Your task to perform on an android device: Clear the cart on amazon. Add apple airpods to the cart on amazon, then select checkout. Image 0: 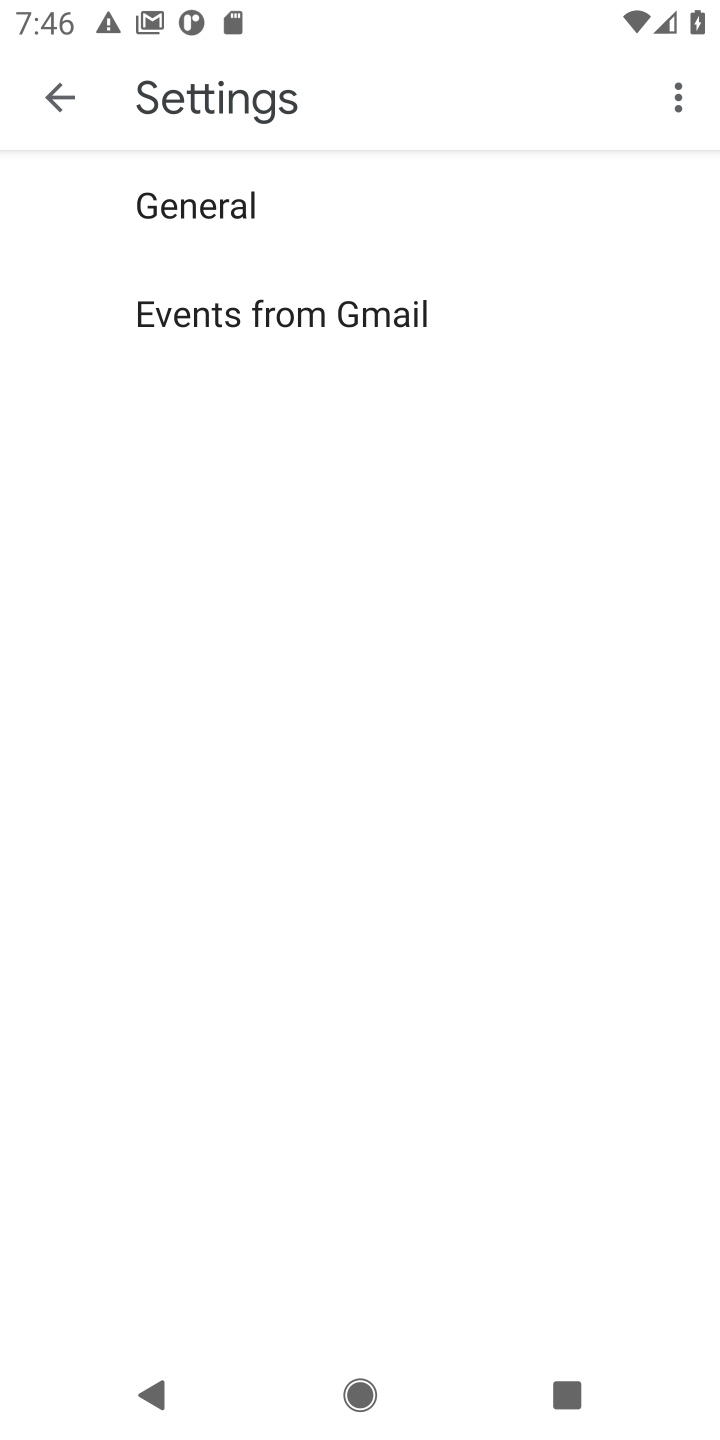
Step 0: press home button
Your task to perform on an android device: Clear the cart on amazon. Add apple airpods to the cart on amazon, then select checkout. Image 1: 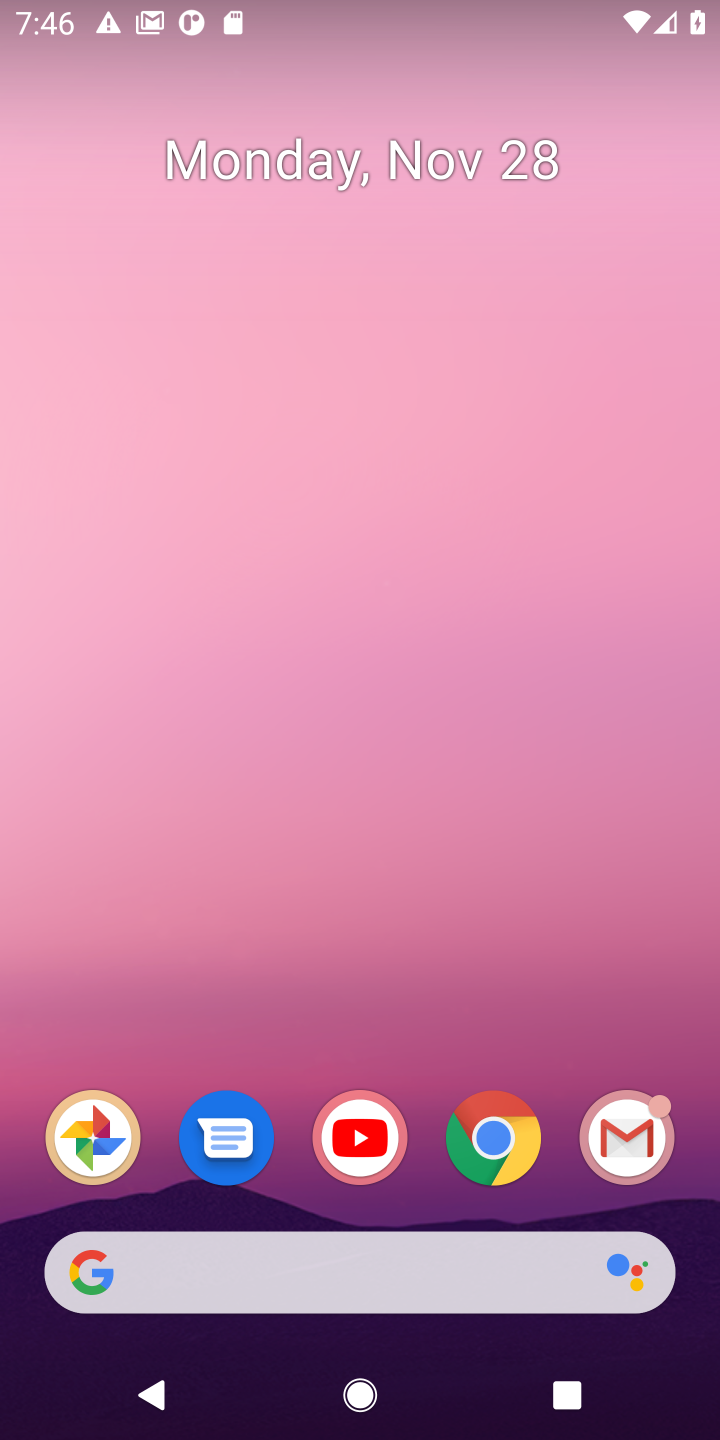
Step 1: click (509, 1121)
Your task to perform on an android device: Clear the cart on amazon. Add apple airpods to the cart on amazon, then select checkout. Image 2: 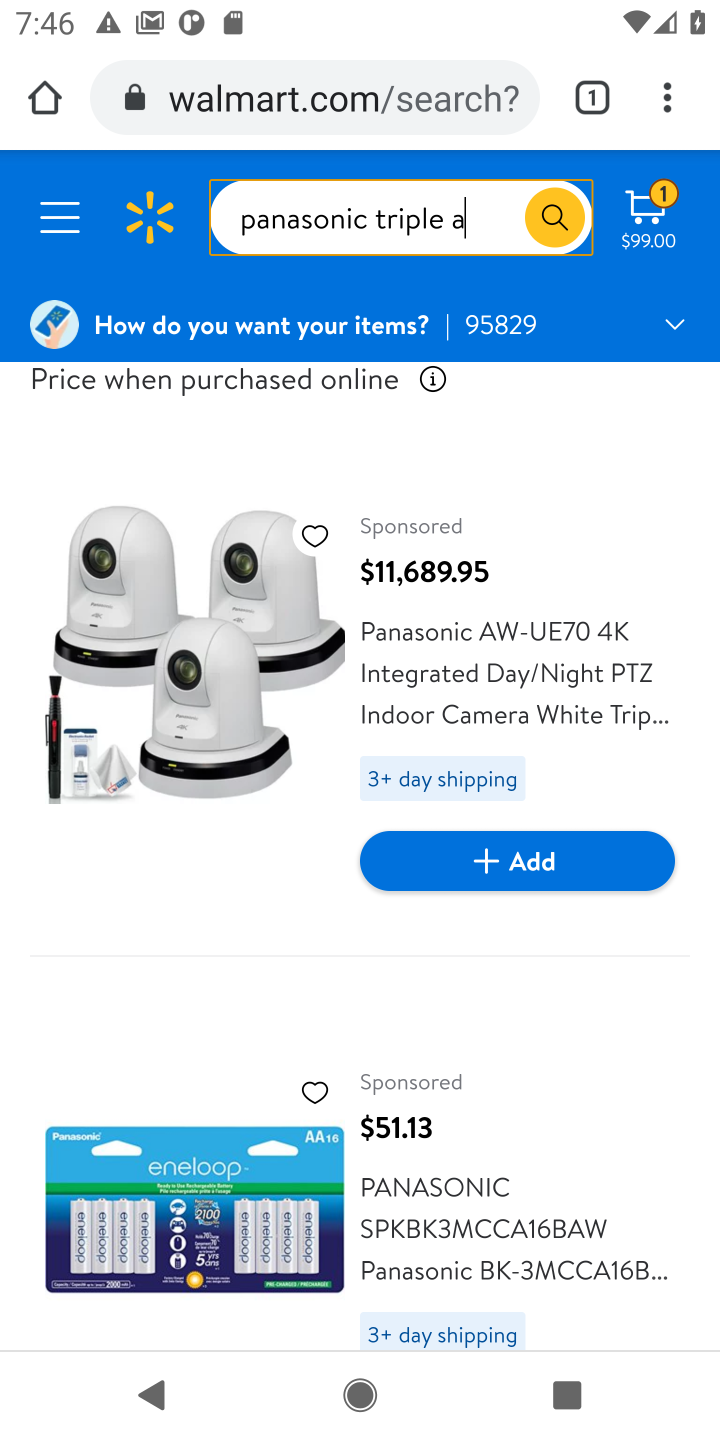
Step 2: click (328, 99)
Your task to perform on an android device: Clear the cart on amazon. Add apple airpods to the cart on amazon, then select checkout. Image 3: 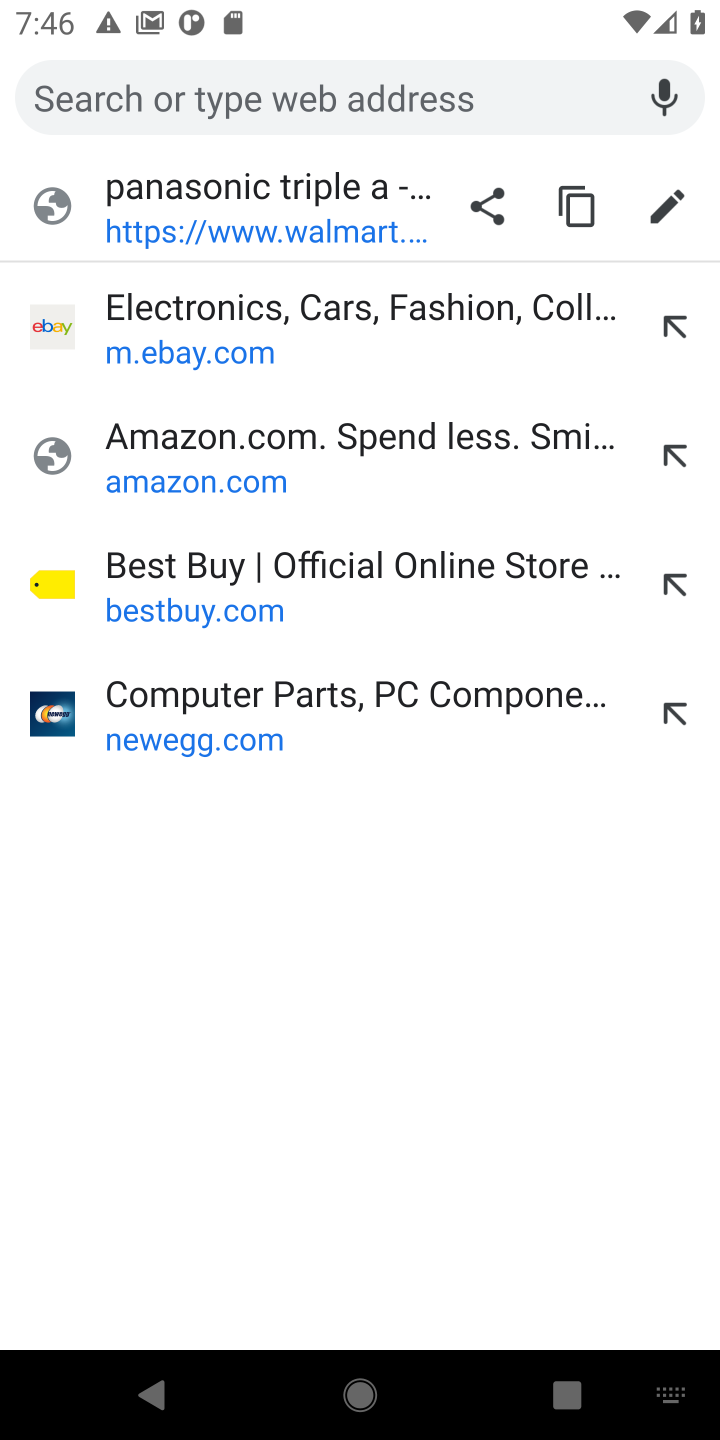
Step 3: click (137, 442)
Your task to perform on an android device: Clear the cart on amazon. Add apple airpods to the cart on amazon, then select checkout. Image 4: 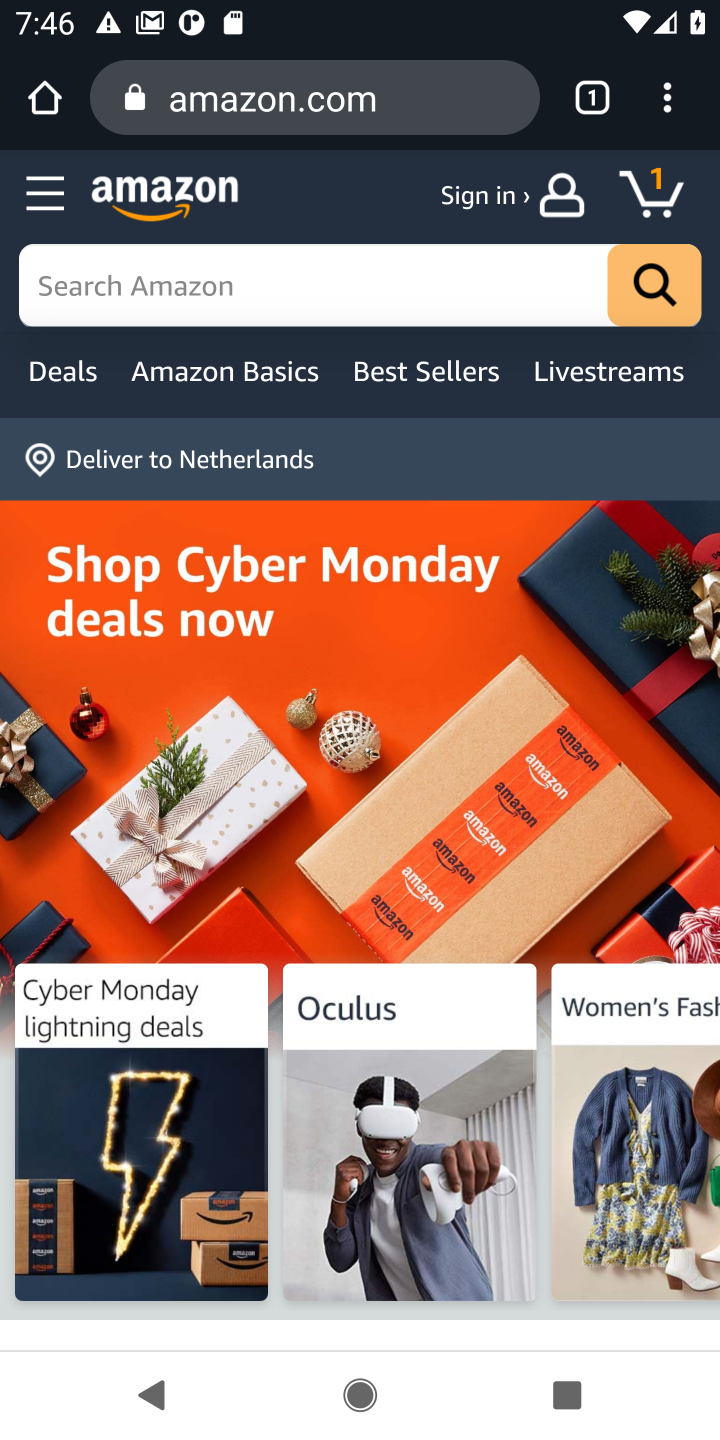
Step 4: click (634, 180)
Your task to perform on an android device: Clear the cart on amazon. Add apple airpods to the cart on amazon, then select checkout. Image 5: 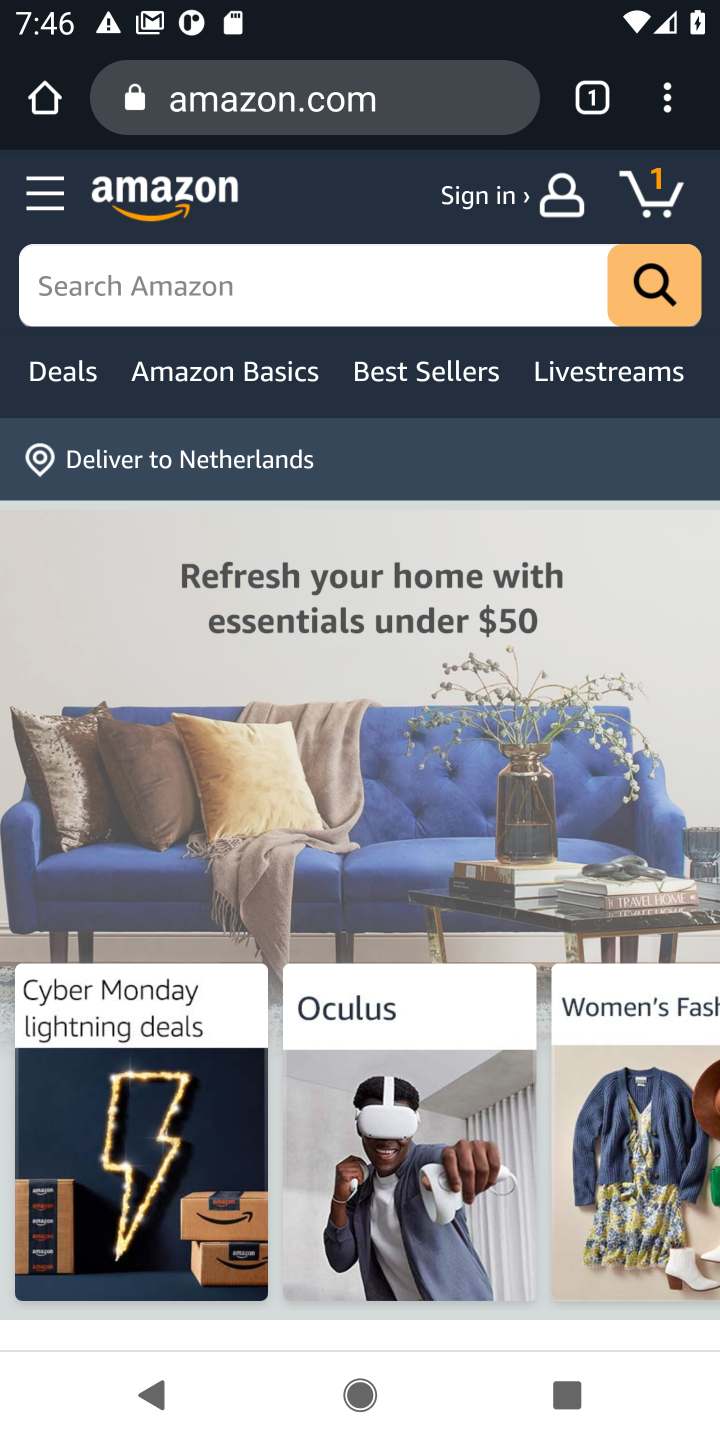
Step 5: click (655, 197)
Your task to perform on an android device: Clear the cart on amazon. Add apple airpods to the cart on amazon, then select checkout. Image 6: 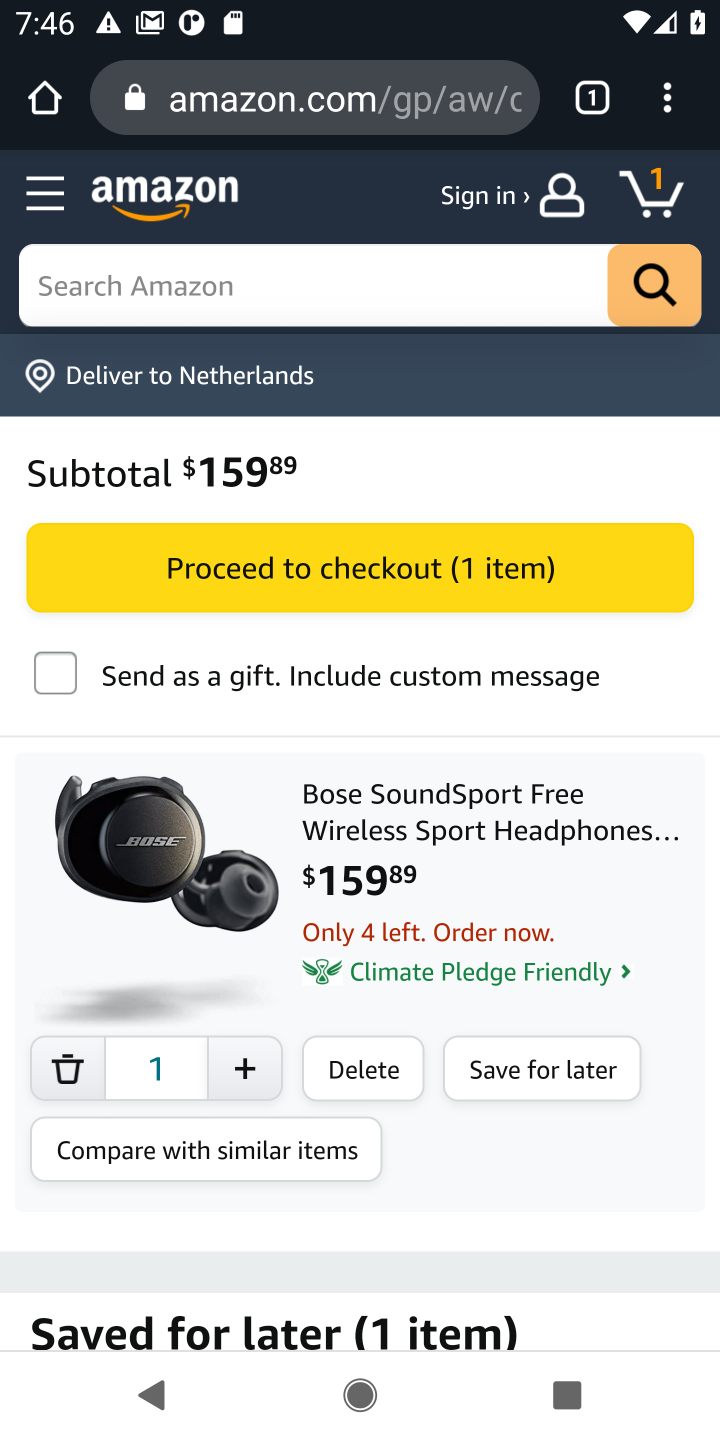
Step 6: click (76, 1065)
Your task to perform on an android device: Clear the cart on amazon. Add apple airpods to the cart on amazon, then select checkout. Image 7: 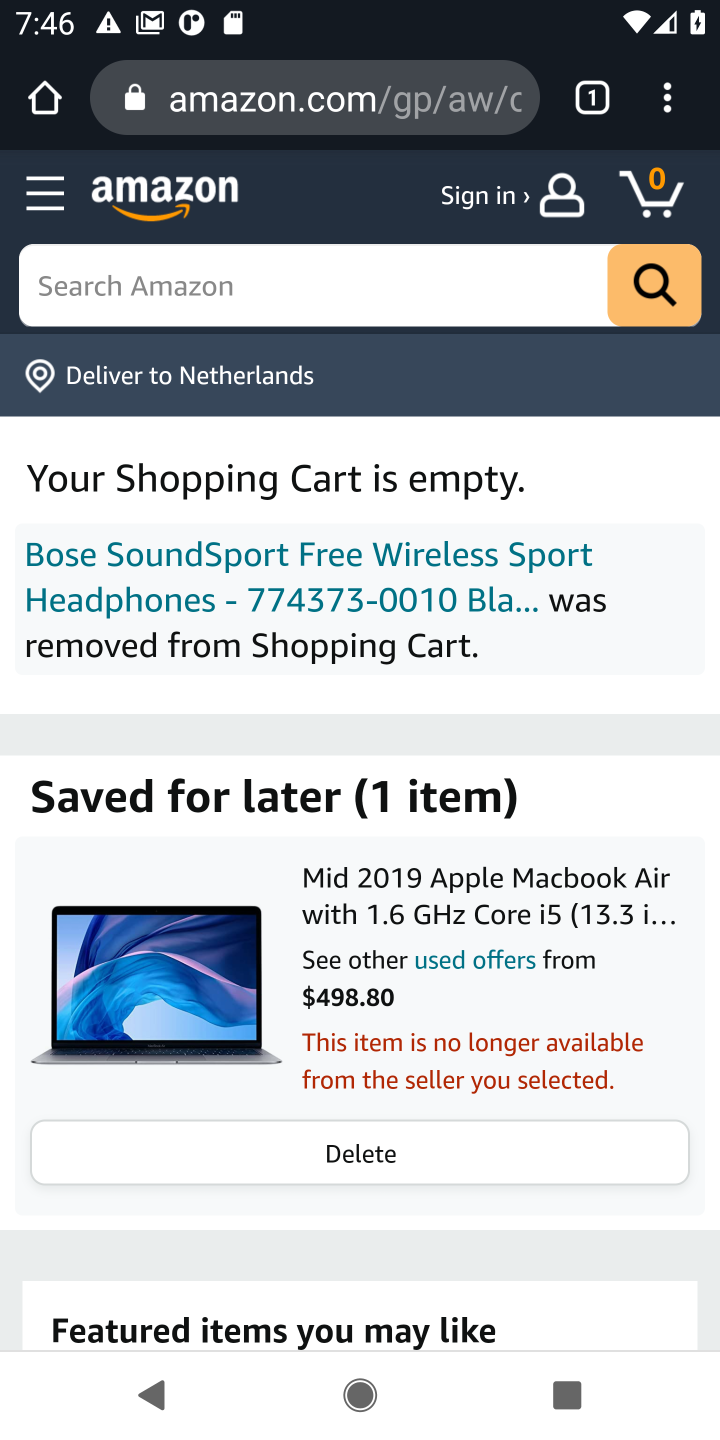
Step 7: click (145, 282)
Your task to perform on an android device: Clear the cart on amazon. Add apple airpods to the cart on amazon, then select checkout. Image 8: 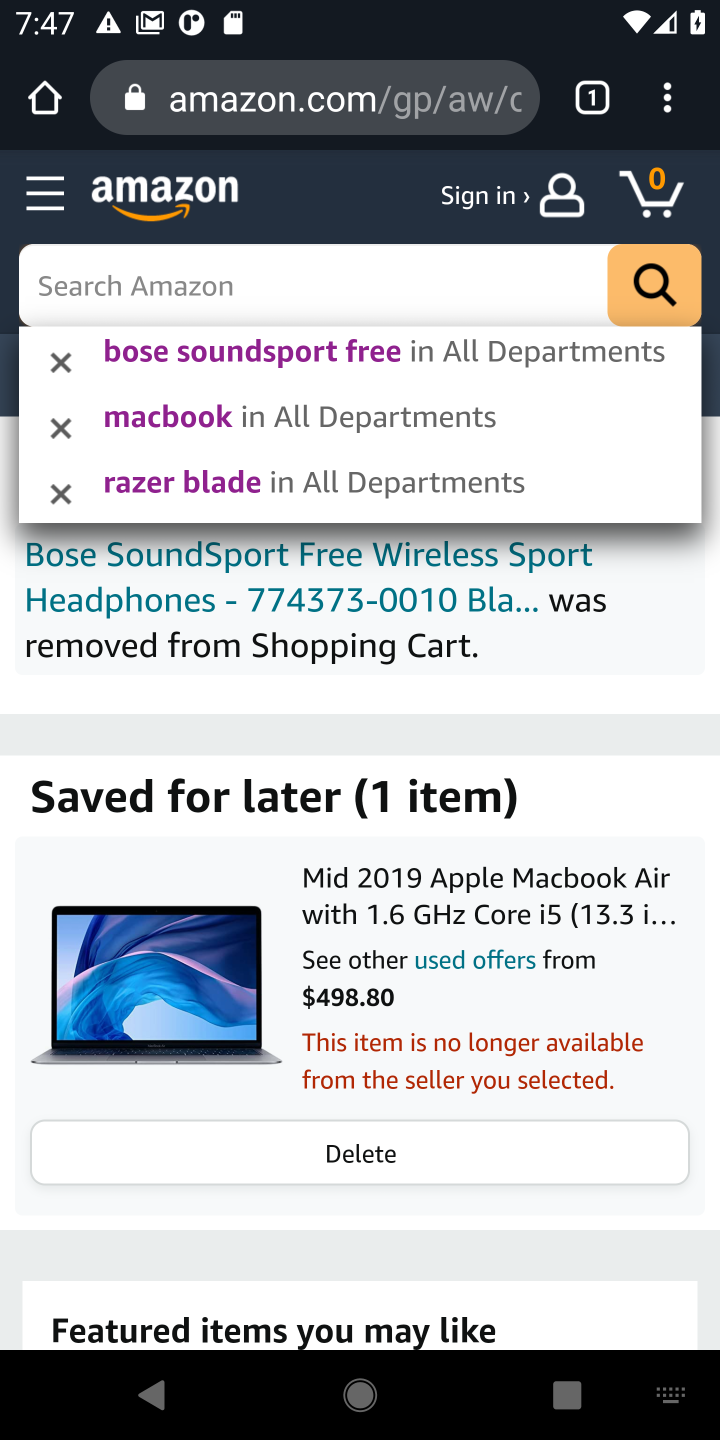
Step 8: type "apple airpods"
Your task to perform on an android device: Clear the cart on amazon. Add apple airpods to the cart on amazon, then select checkout. Image 9: 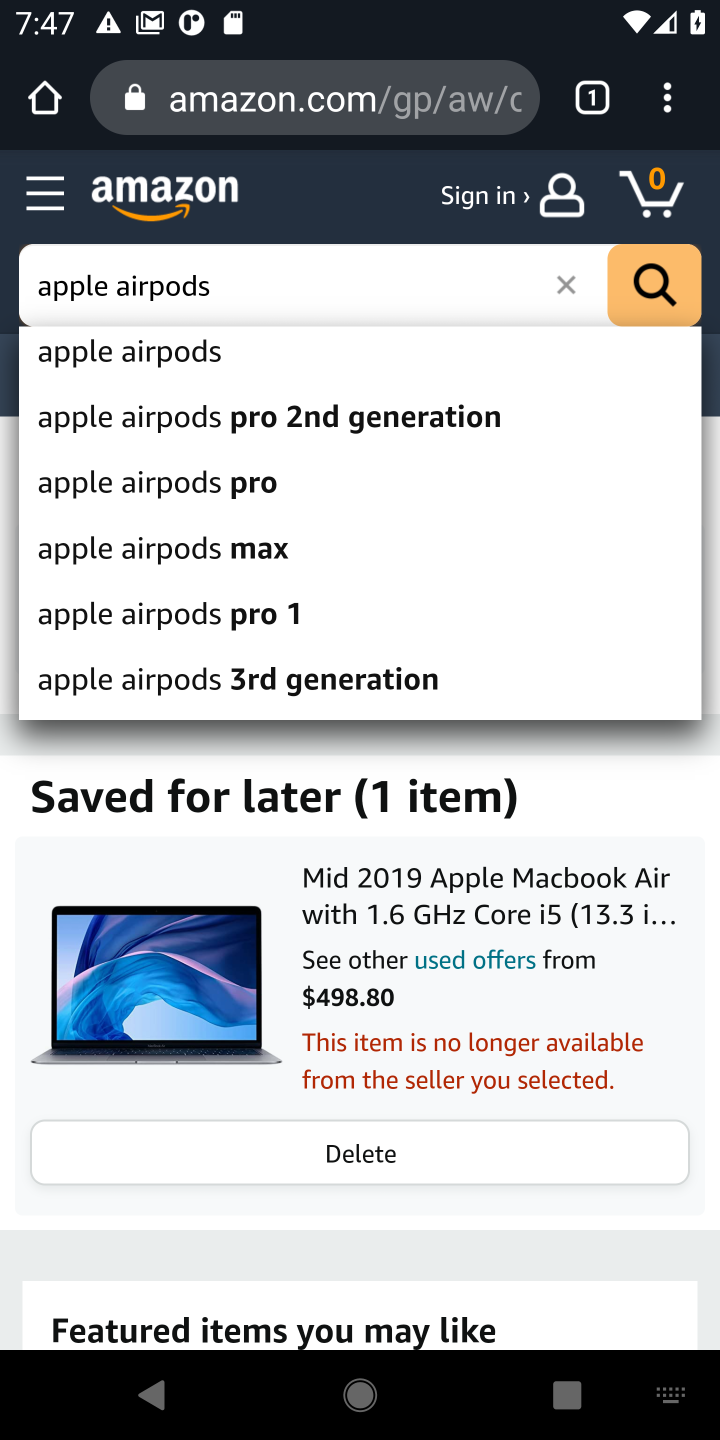
Step 9: click (146, 365)
Your task to perform on an android device: Clear the cart on amazon. Add apple airpods to the cart on amazon, then select checkout. Image 10: 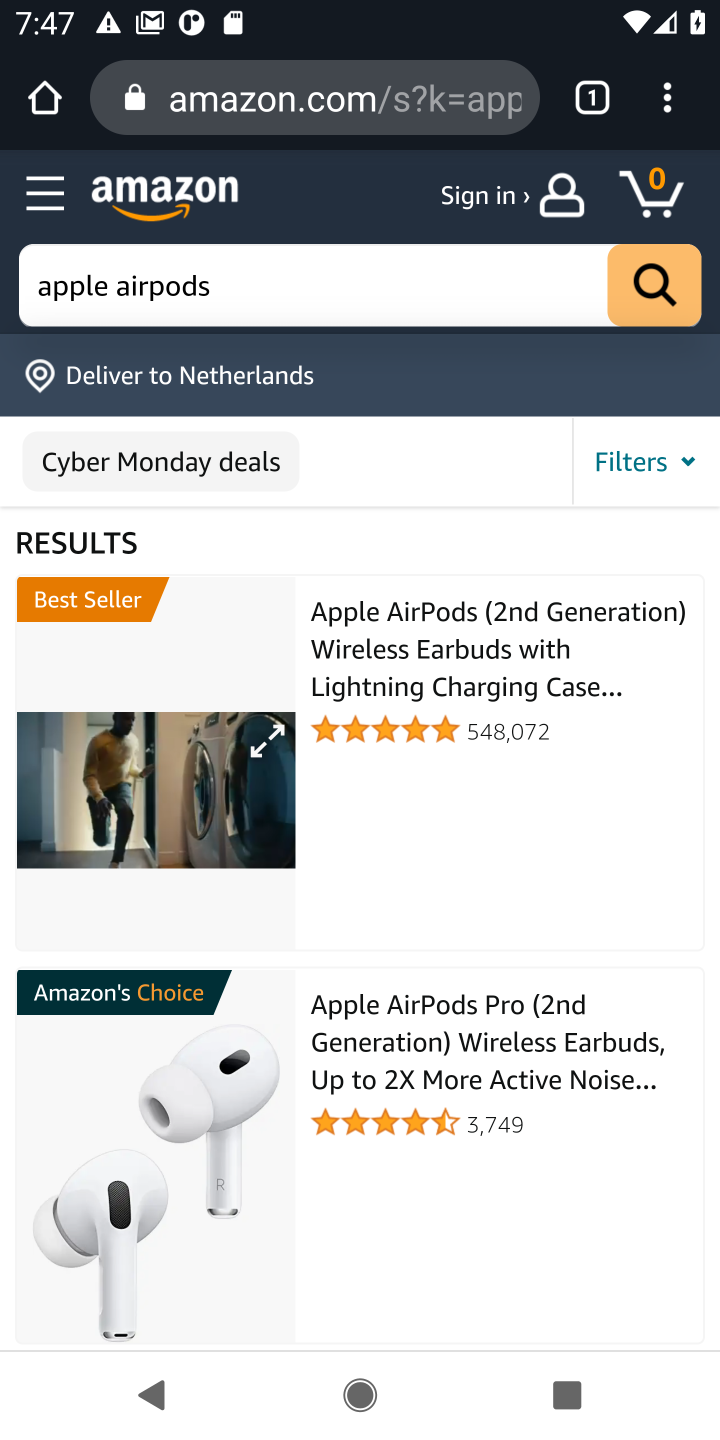
Step 10: drag from (427, 1101) to (460, 663)
Your task to perform on an android device: Clear the cart on amazon. Add apple airpods to the cart on amazon, then select checkout. Image 11: 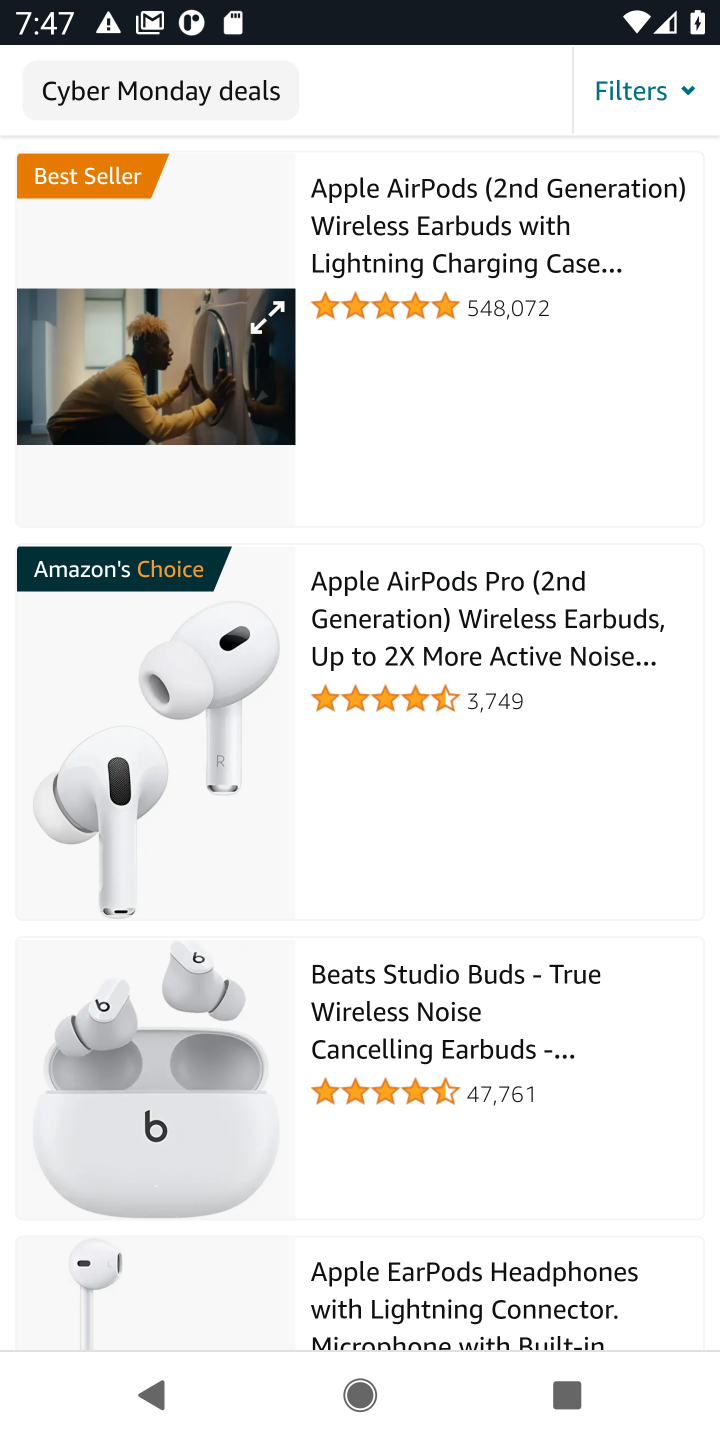
Step 11: drag from (509, 1037) to (502, 616)
Your task to perform on an android device: Clear the cart on amazon. Add apple airpods to the cart on amazon, then select checkout. Image 12: 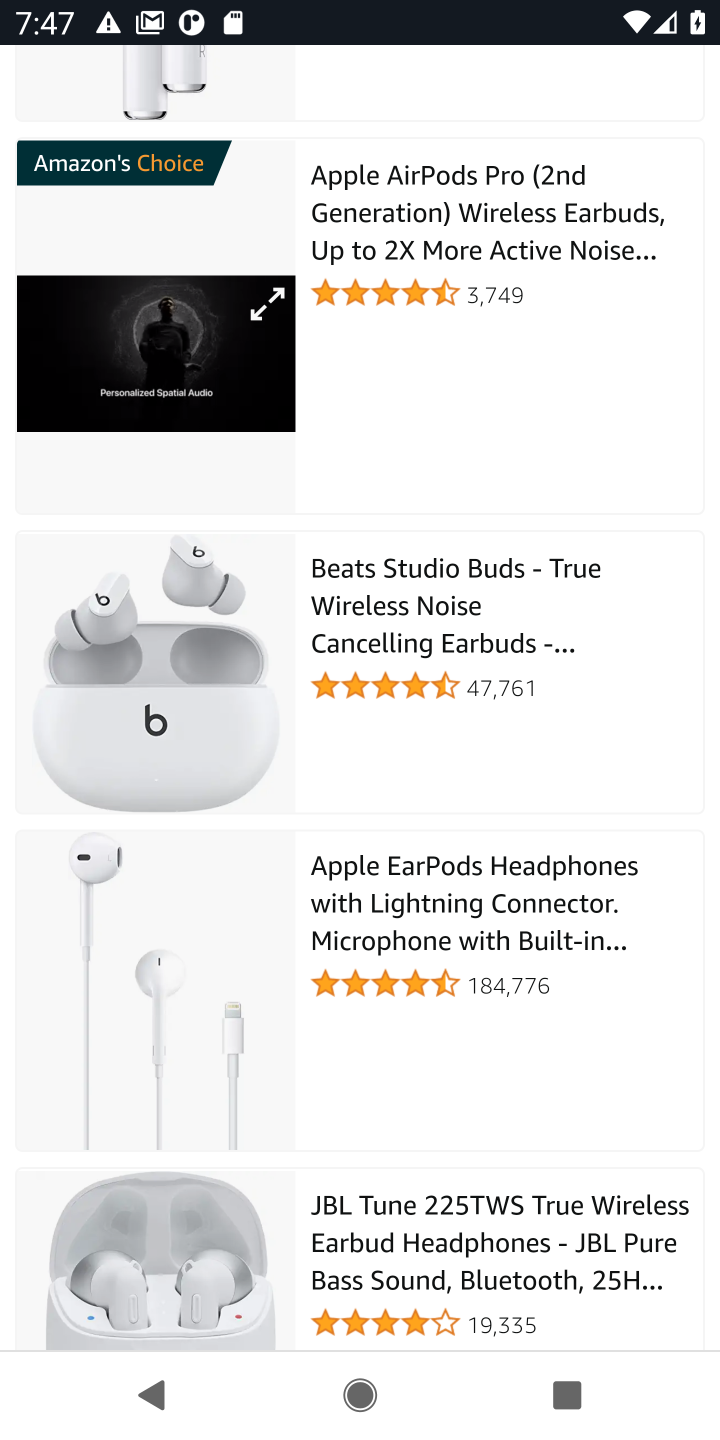
Step 12: drag from (520, 1039) to (524, 530)
Your task to perform on an android device: Clear the cart on amazon. Add apple airpods to the cart on amazon, then select checkout. Image 13: 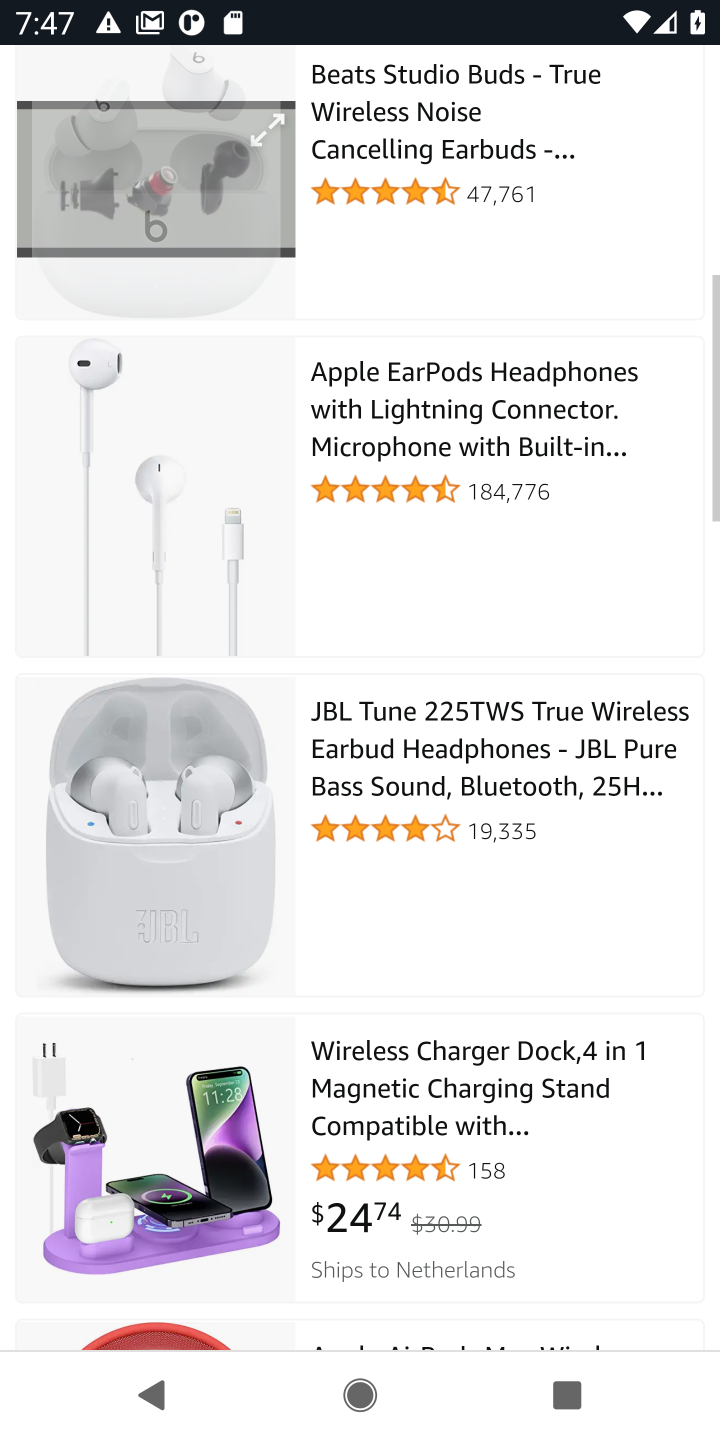
Step 13: drag from (496, 1100) to (465, 672)
Your task to perform on an android device: Clear the cart on amazon. Add apple airpods to the cart on amazon, then select checkout. Image 14: 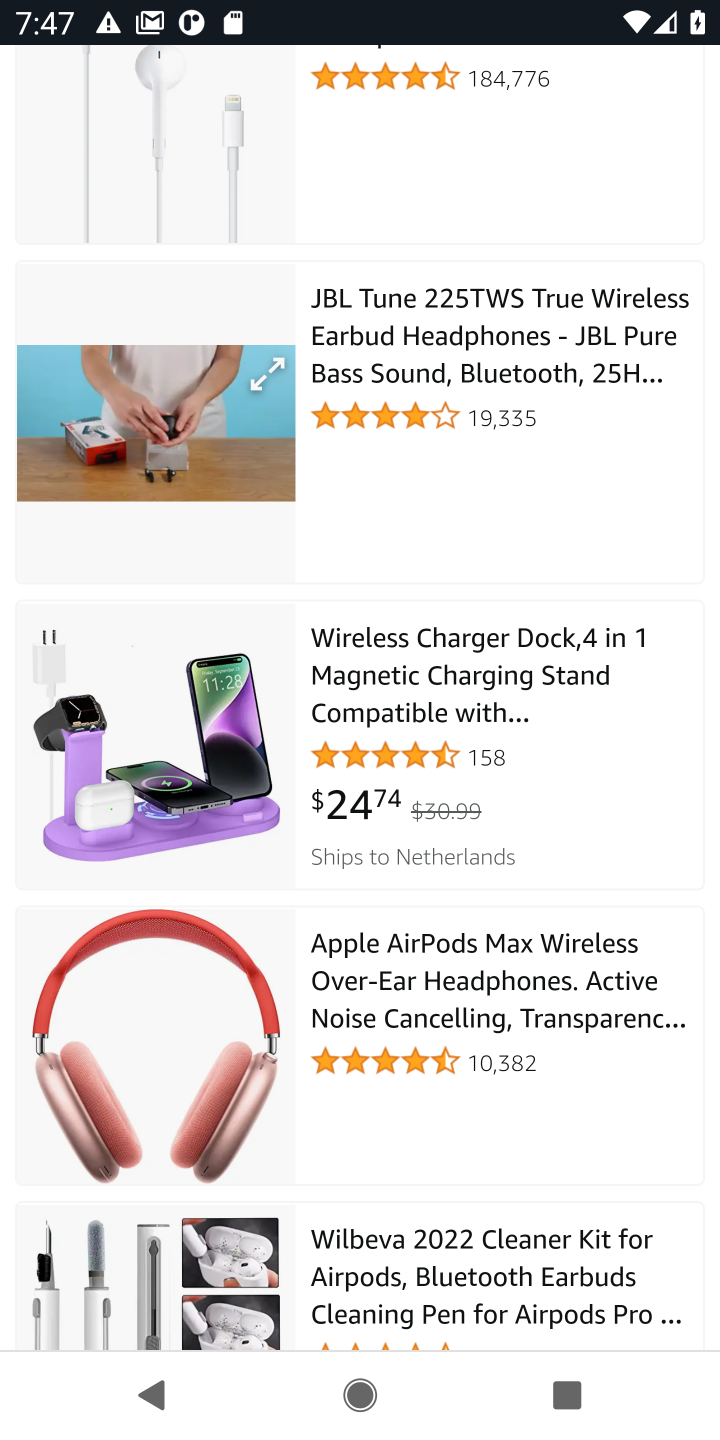
Step 14: drag from (528, 1154) to (513, 611)
Your task to perform on an android device: Clear the cart on amazon. Add apple airpods to the cart on amazon, then select checkout. Image 15: 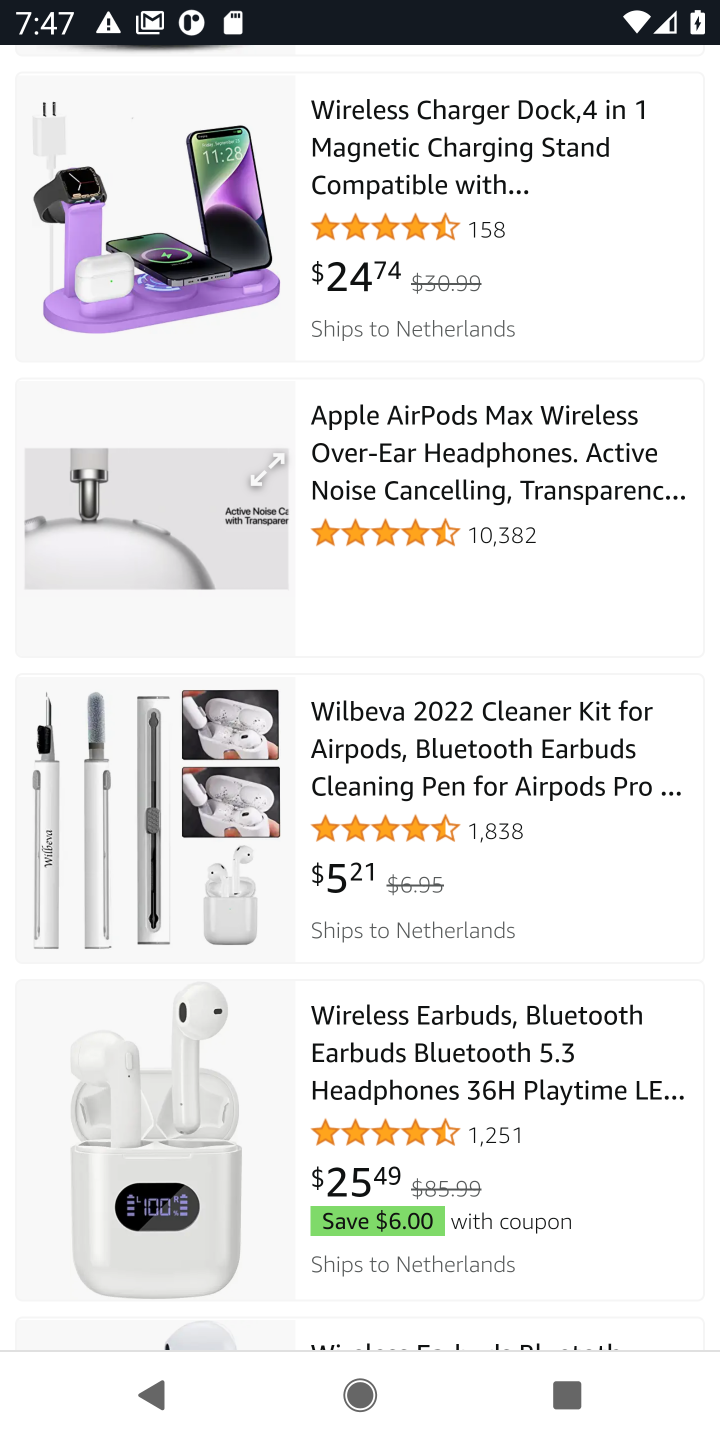
Step 15: drag from (531, 1208) to (537, 771)
Your task to perform on an android device: Clear the cart on amazon. Add apple airpods to the cart on amazon, then select checkout. Image 16: 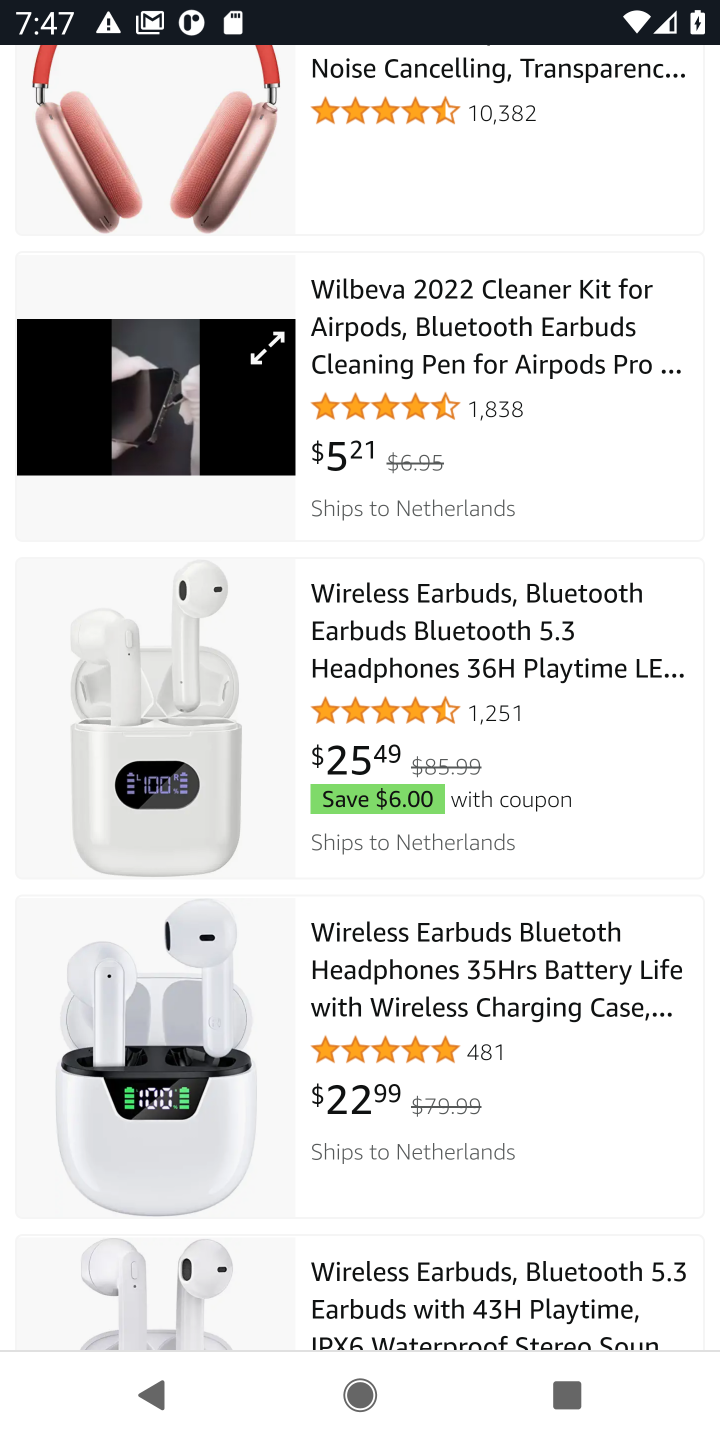
Step 16: drag from (495, 1120) to (494, 643)
Your task to perform on an android device: Clear the cart on amazon. Add apple airpods to the cart on amazon, then select checkout. Image 17: 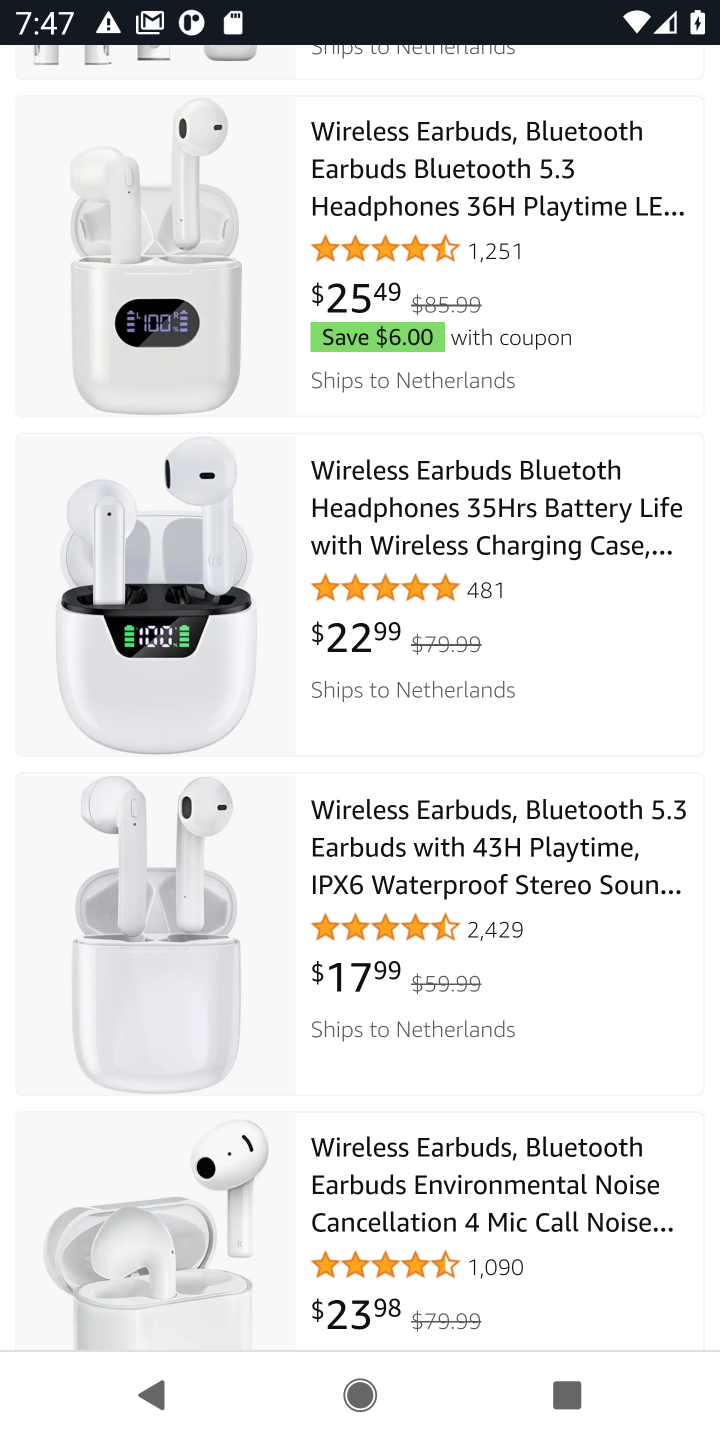
Step 17: drag from (471, 1069) to (469, 619)
Your task to perform on an android device: Clear the cart on amazon. Add apple airpods to the cart on amazon, then select checkout. Image 18: 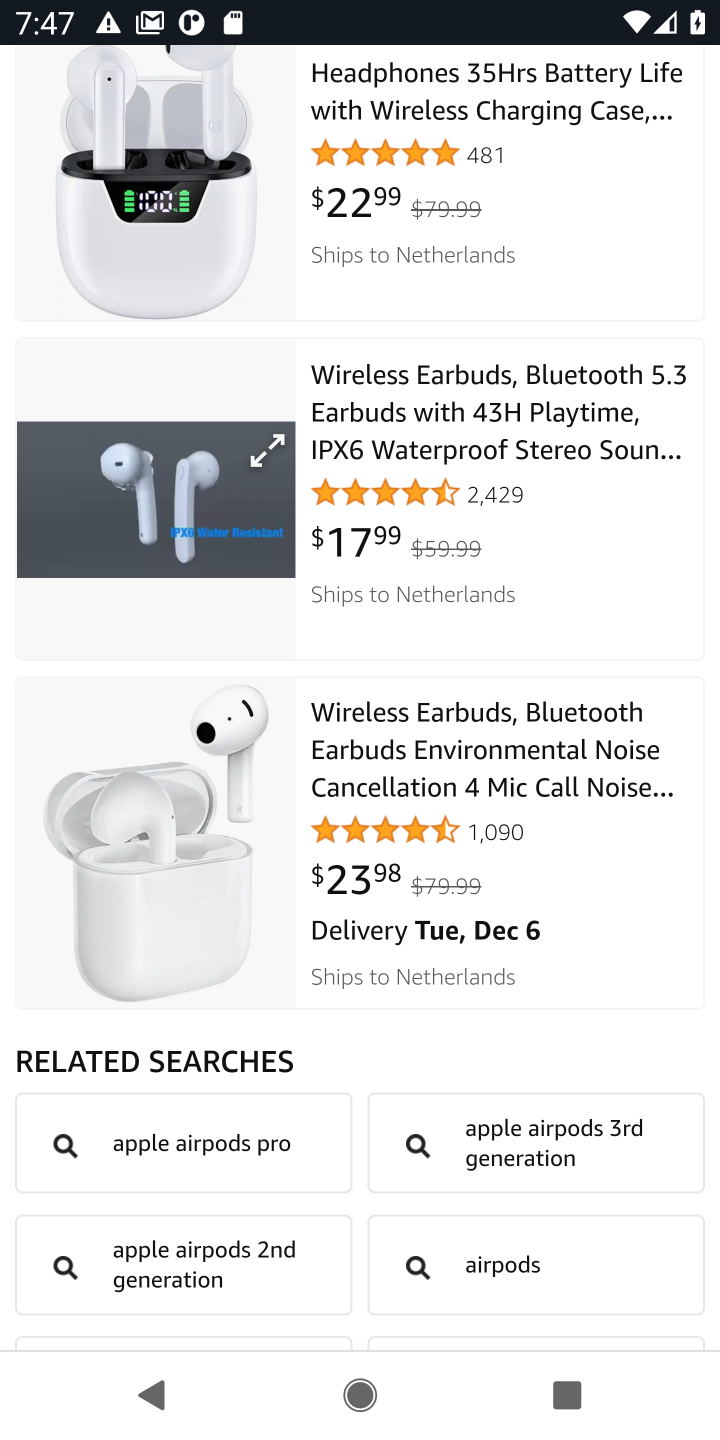
Step 18: drag from (499, 609) to (437, 1287)
Your task to perform on an android device: Clear the cart on amazon. Add apple airpods to the cart on amazon, then select checkout. Image 19: 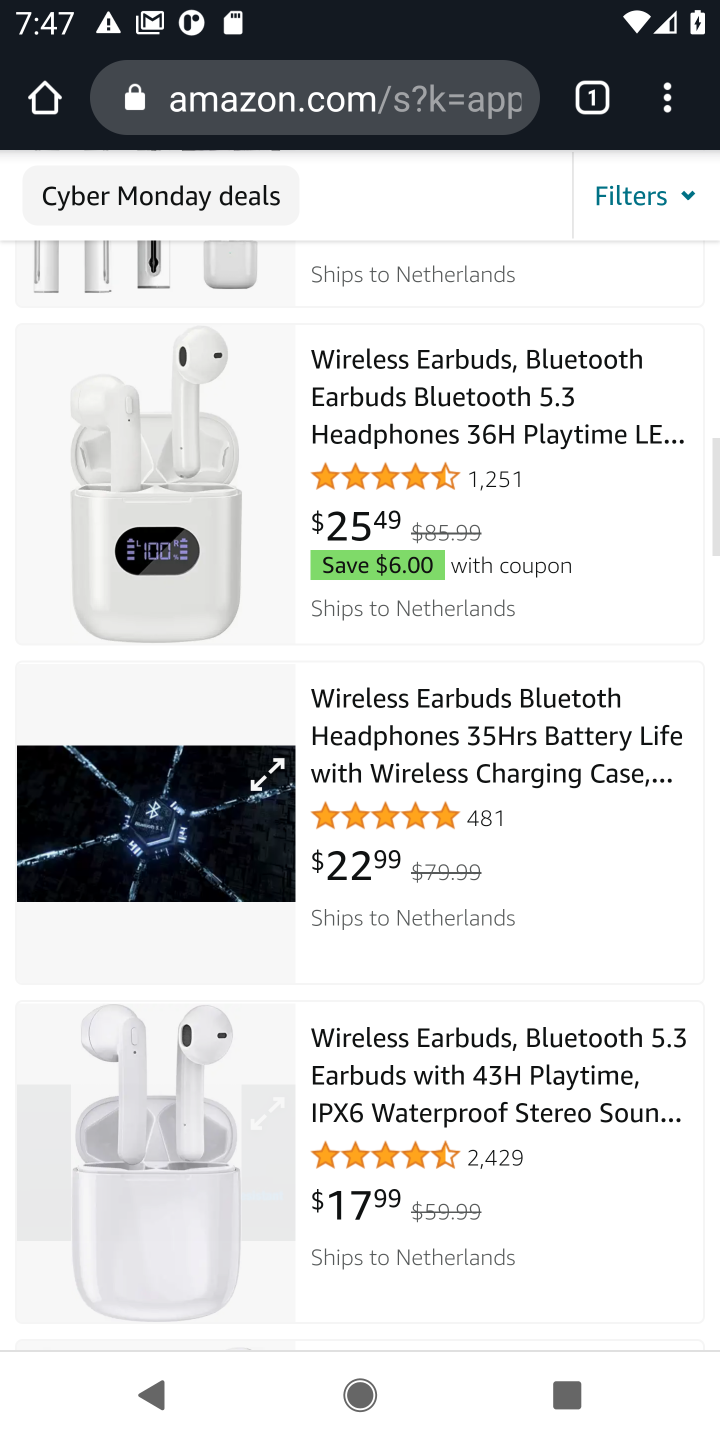
Step 19: drag from (551, 566) to (462, 1333)
Your task to perform on an android device: Clear the cart on amazon. Add apple airpods to the cart on amazon, then select checkout. Image 20: 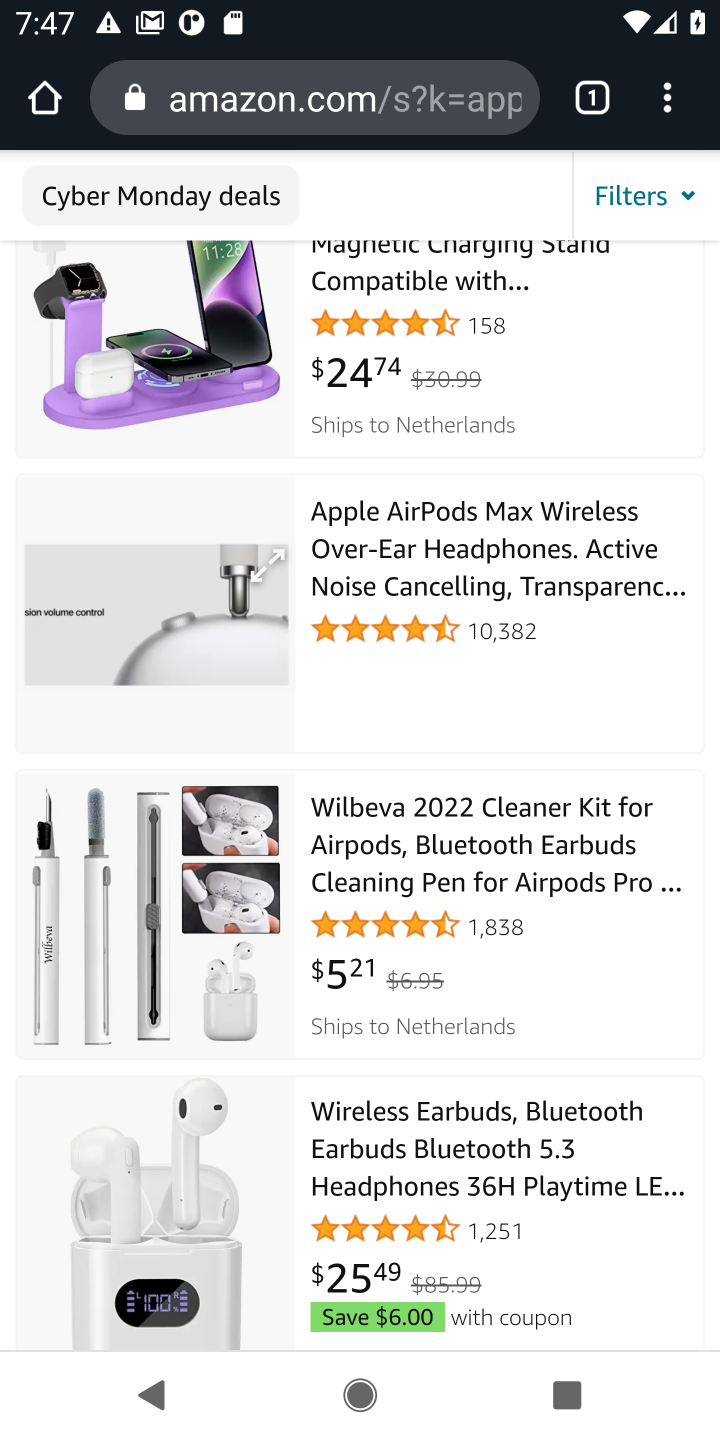
Step 20: drag from (590, 545) to (489, 1148)
Your task to perform on an android device: Clear the cart on amazon. Add apple airpods to the cart on amazon, then select checkout. Image 21: 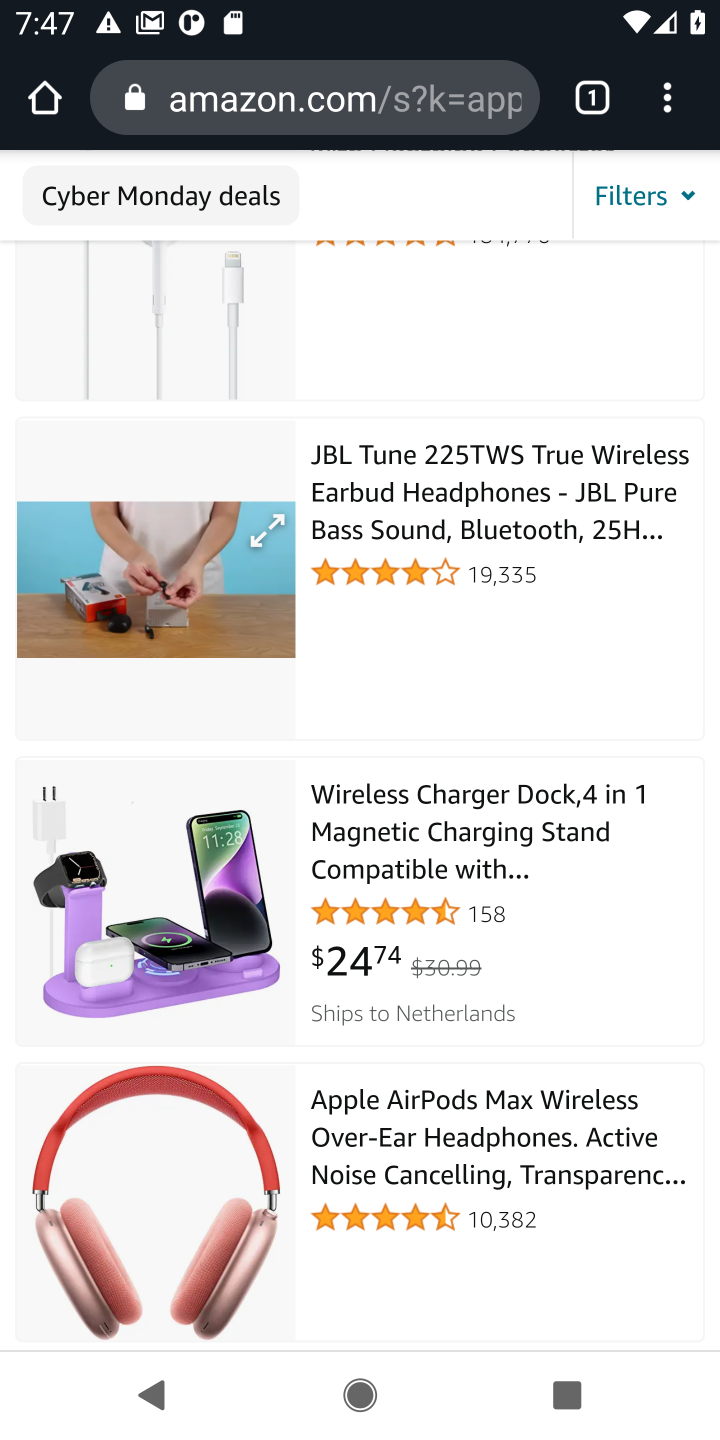
Step 21: drag from (459, 624) to (446, 1096)
Your task to perform on an android device: Clear the cart on amazon. Add apple airpods to the cart on amazon, then select checkout. Image 22: 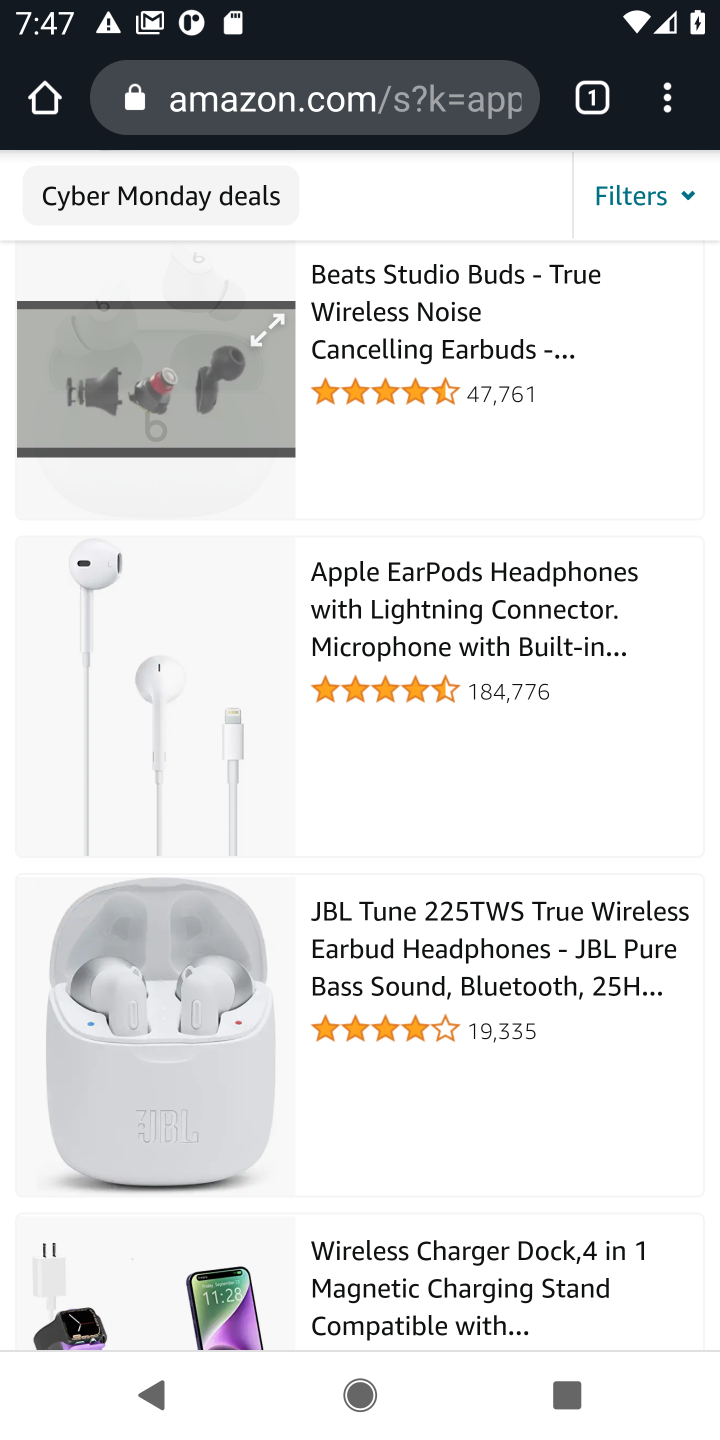
Step 22: drag from (432, 666) to (388, 1182)
Your task to perform on an android device: Clear the cart on amazon. Add apple airpods to the cart on amazon, then select checkout. Image 23: 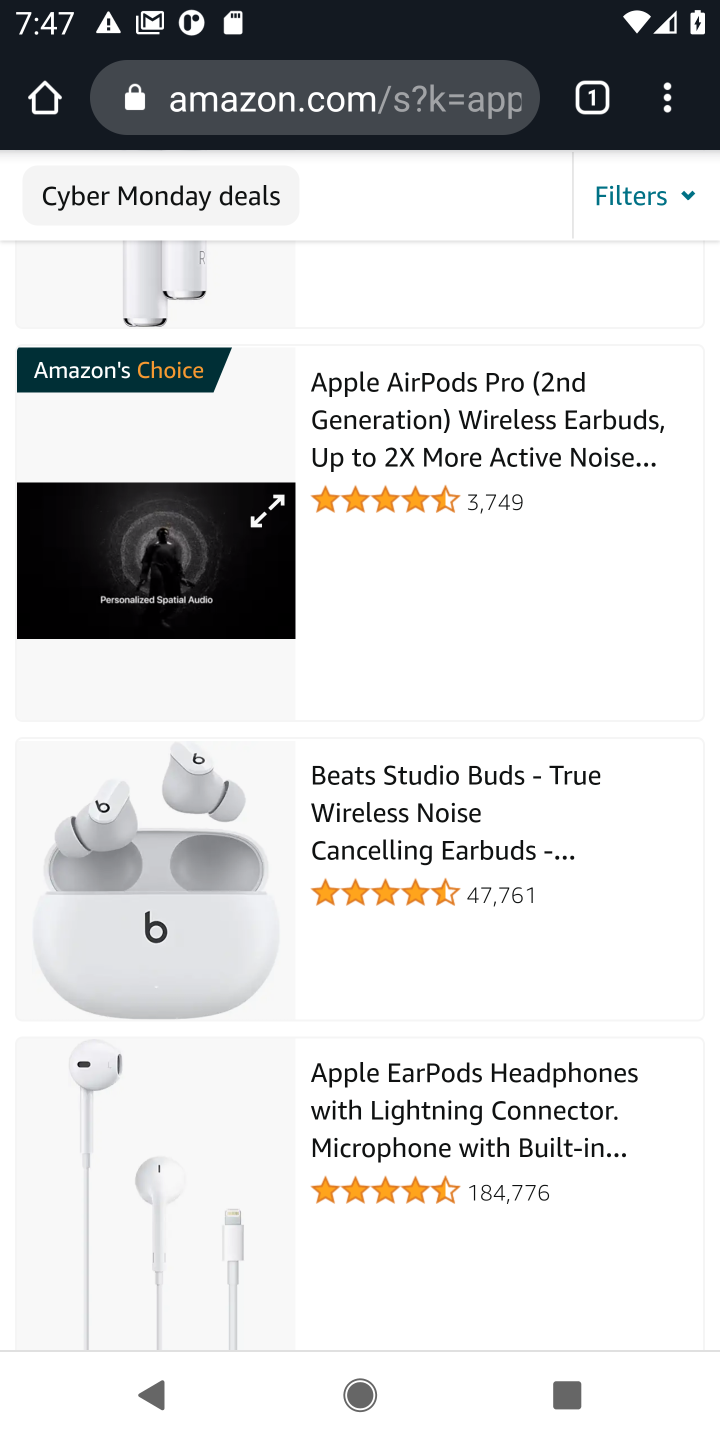
Step 23: drag from (422, 668) to (364, 1139)
Your task to perform on an android device: Clear the cart on amazon. Add apple airpods to the cart on amazon, then select checkout. Image 24: 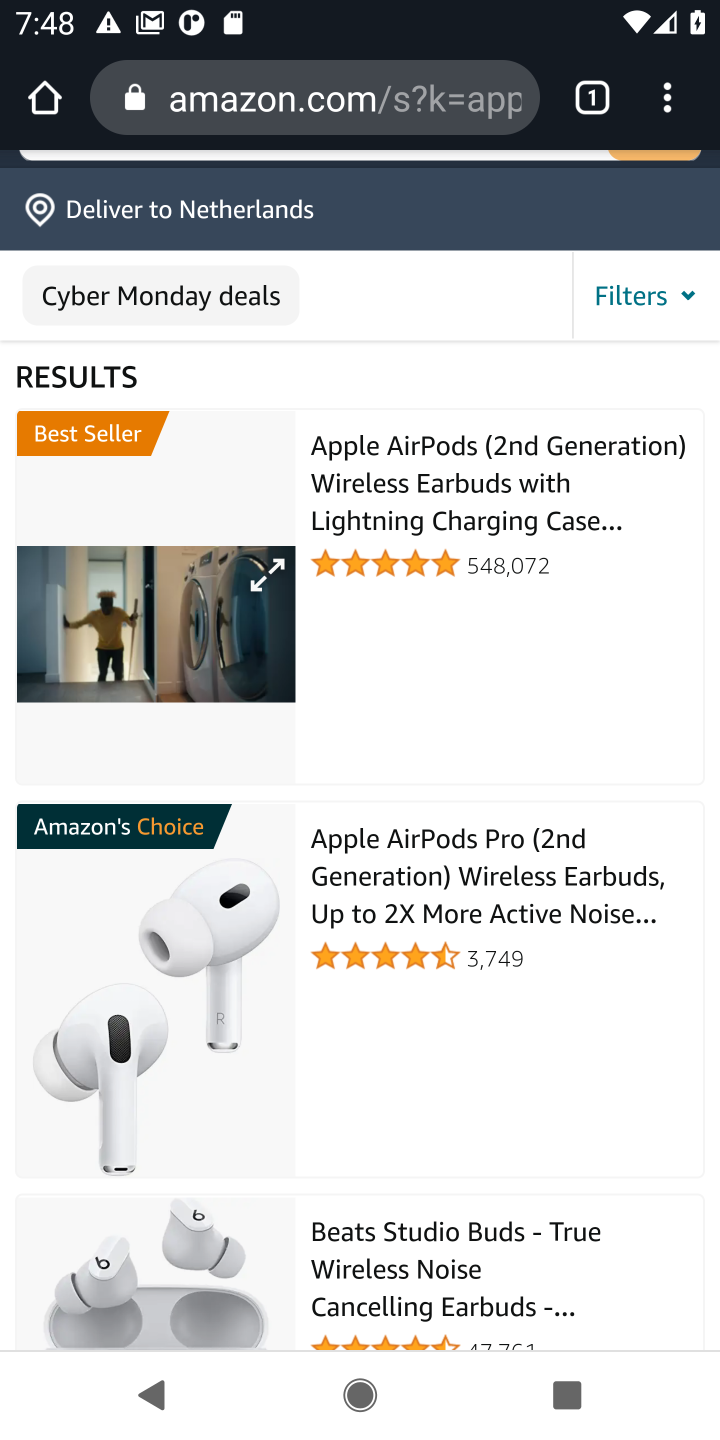
Step 24: click (418, 504)
Your task to perform on an android device: Clear the cart on amazon. Add apple airpods to the cart on amazon, then select checkout. Image 25: 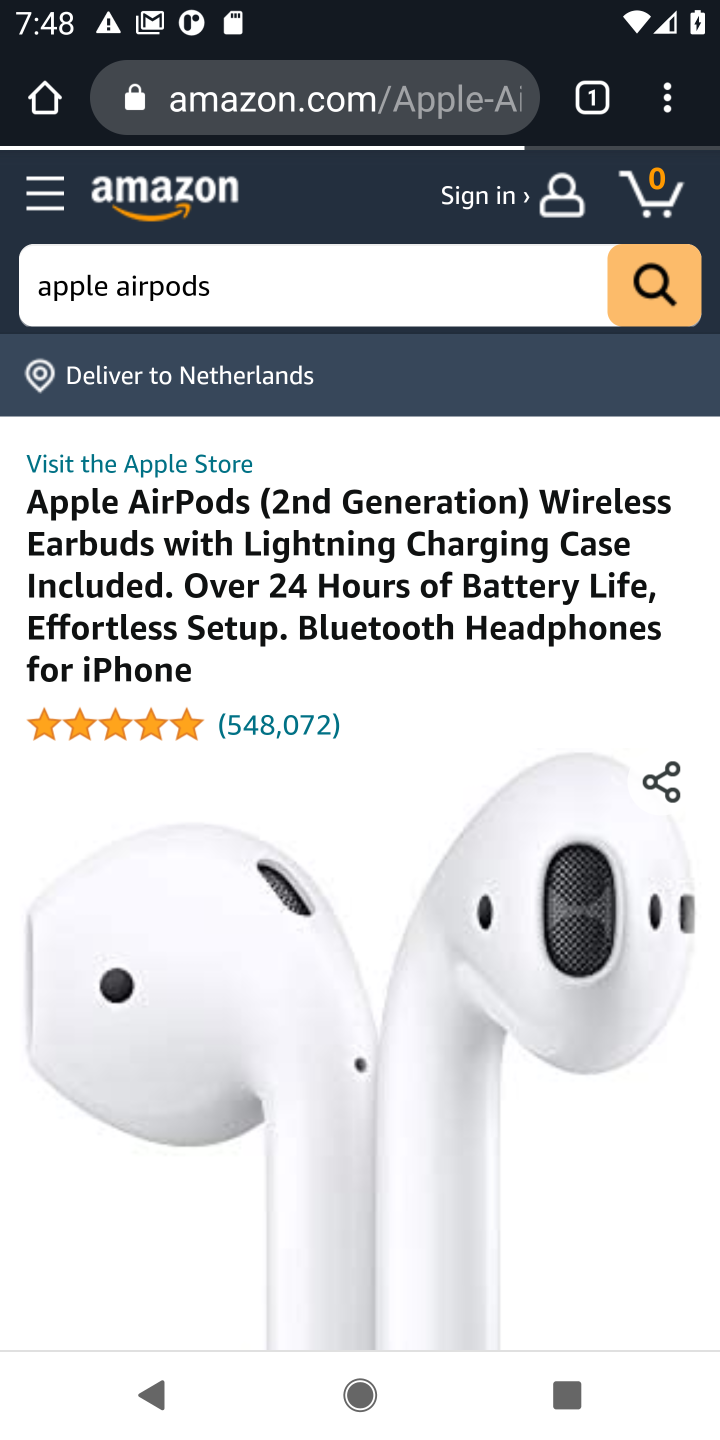
Step 25: task complete